Your task to perform on an android device: Open Youtube and go to "Your channel" Image 0: 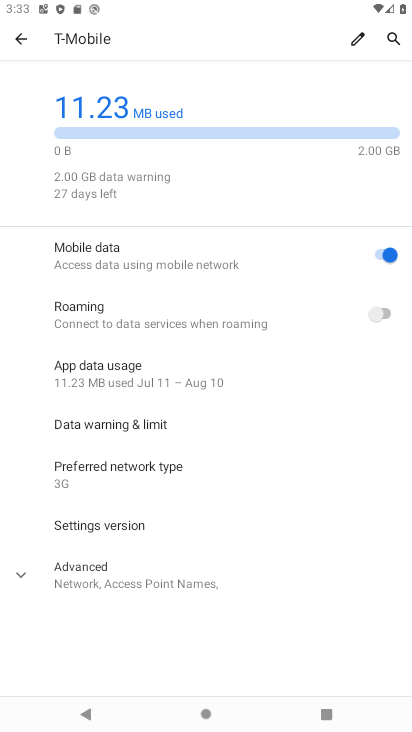
Step 0: press home button
Your task to perform on an android device: Open Youtube and go to "Your channel" Image 1: 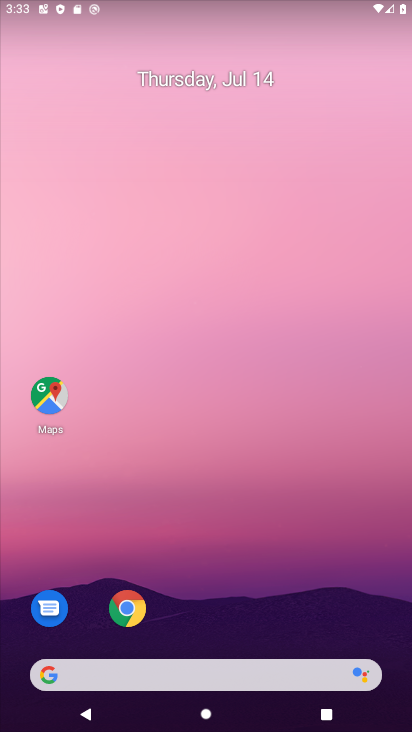
Step 1: drag from (4, 666) to (271, 101)
Your task to perform on an android device: Open Youtube and go to "Your channel" Image 2: 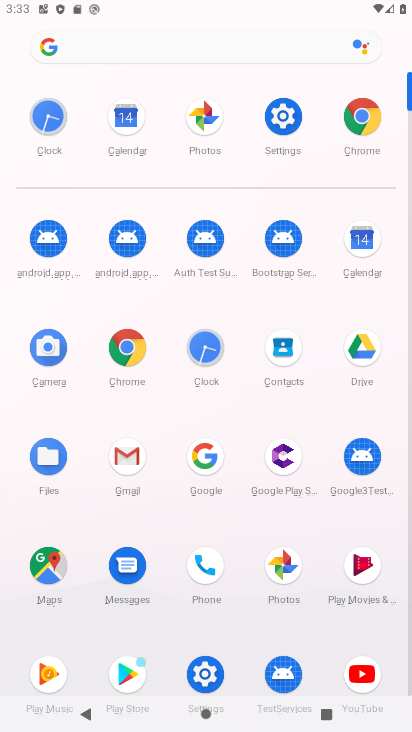
Step 2: click (370, 675)
Your task to perform on an android device: Open Youtube and go to "Your channel" Image 3: 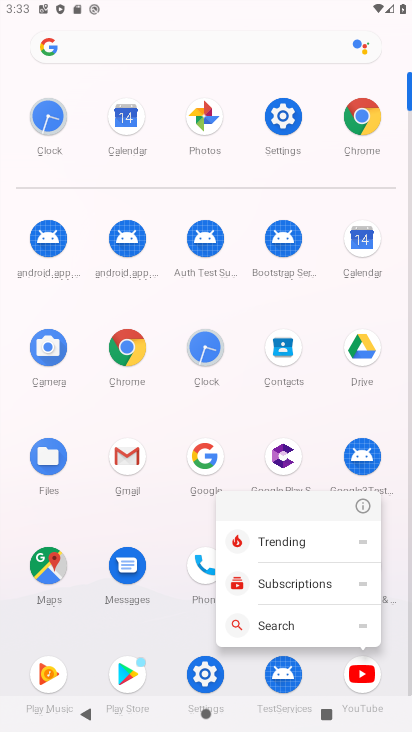
Step 3: click (355, 670)
Your task to perform on an android device: Open Youtube and go to "Your channel" Image 4: 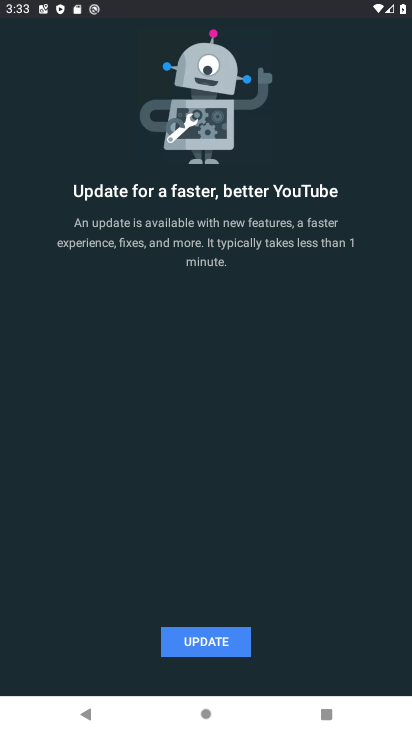
Step 4: task complete